Your task to perform on an android device: Check the news Image 0: 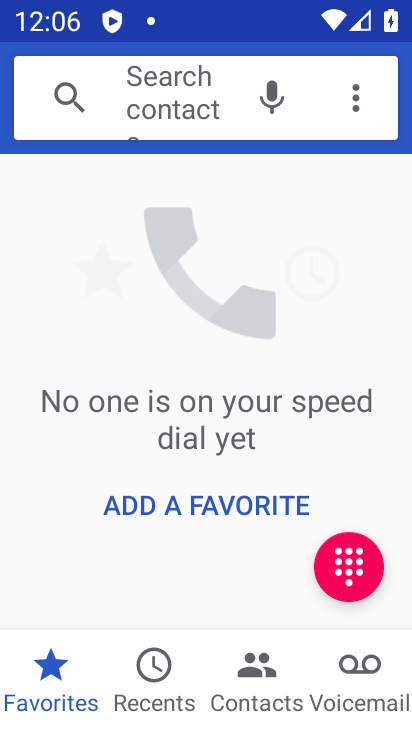
Step 0: press home button
Your task to perform on an android device: Check the news Image 1: 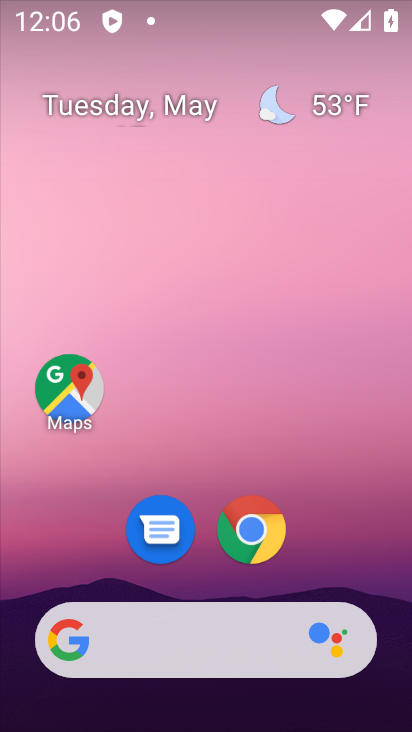
Step 1: click (205, 648)
Your task to perform on an android device: Check the news Image 2: 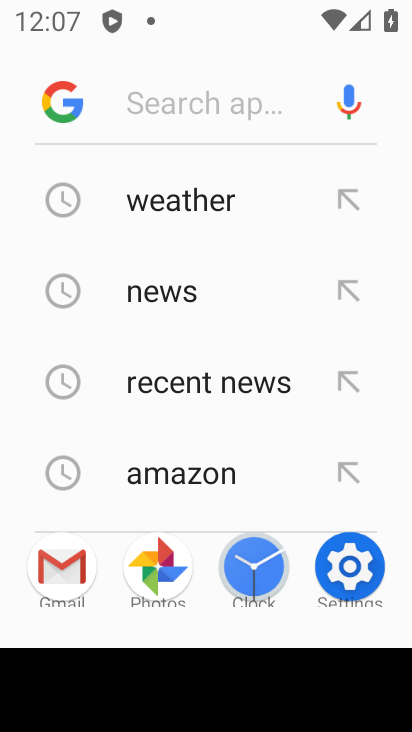
Step 2: click (206, 292)
Your task to perform on an android device: Check the news Image 3: 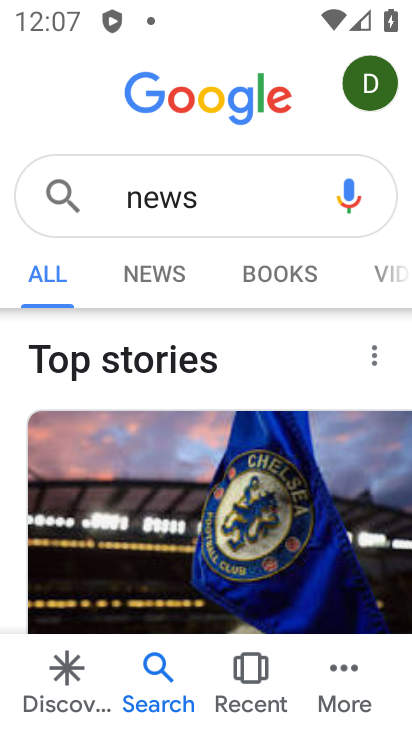
Step 3: task complete